Your task to perform on an android device: Check the weather Image 0: 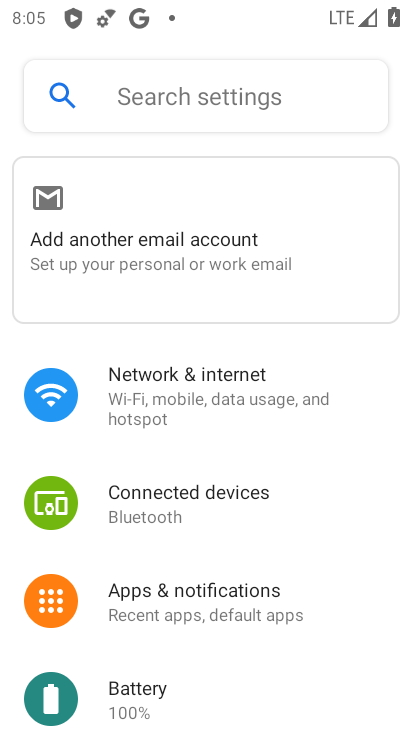
Step 0: drag from (238, 659) to (334, 122)
Your task to perform on an android device: Check the weather Image 1: 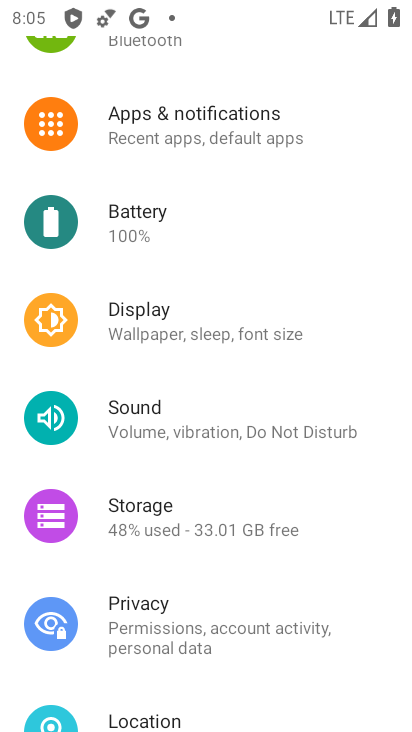
Step 1: press home button
Your task to perform on an android device: Check the weather Image 2: 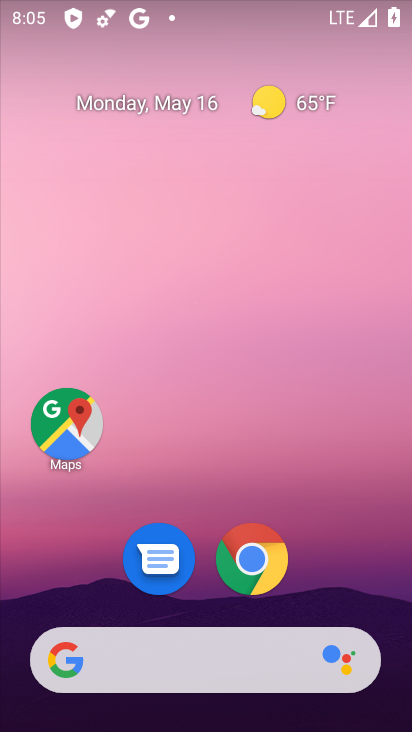
Step 2: click (134, 102)
Your task to perform on an android device: Check the weather Image 3: 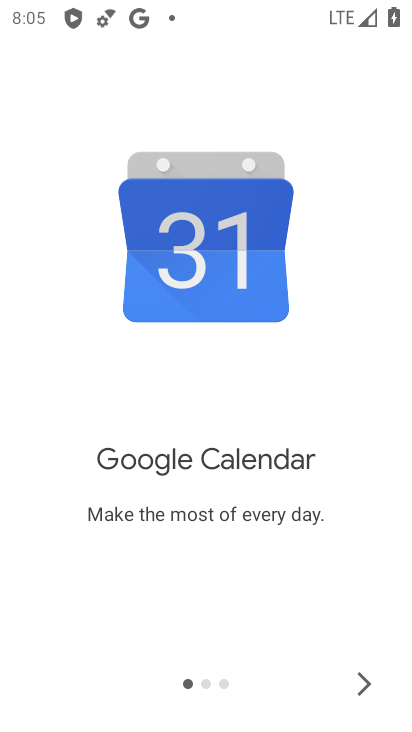
Step 3: click (361, 680)
Your task to perform on an android device: Check the weather Image 4: 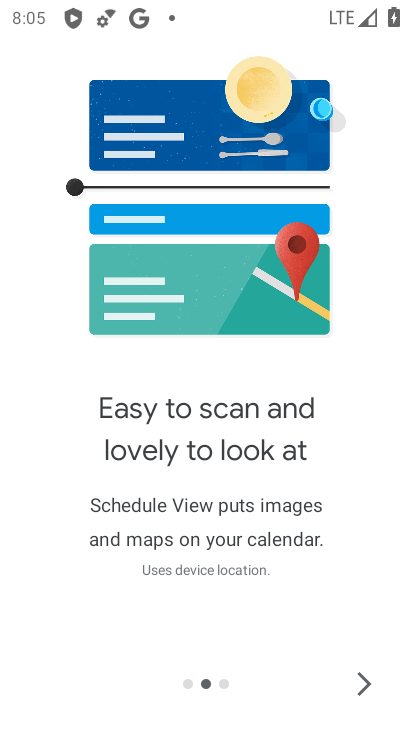
Step 4: click (366, 675)
Your task to perform on an android device: Check the weather Image 5: 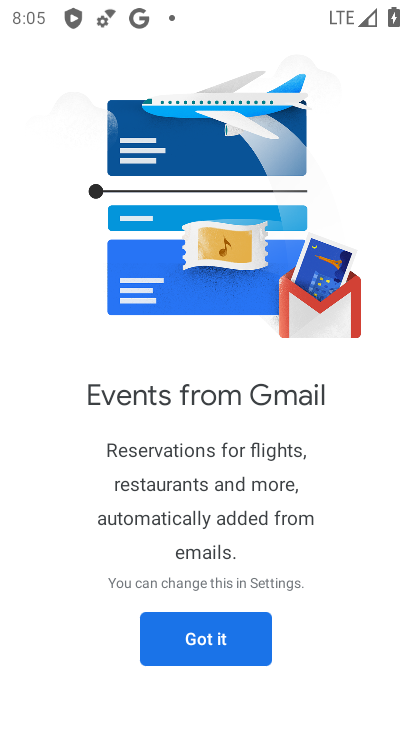
Step 5: click (368, 667)
Your task to perform on an android device: Check the weather Image 6: 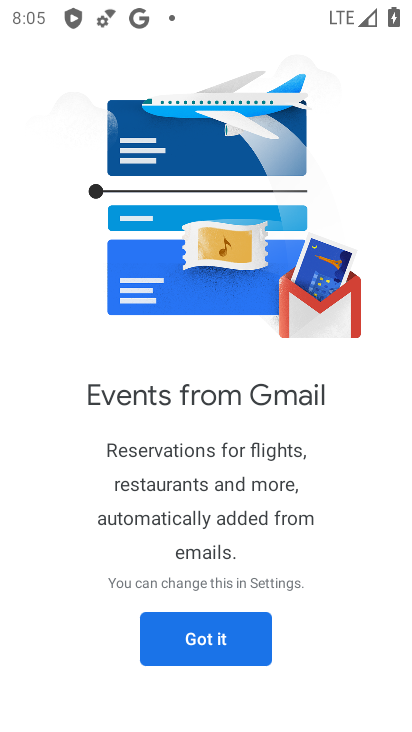
Step 6: click (253, 637)
Your task to perform on an android device: Check the weather Image 7: 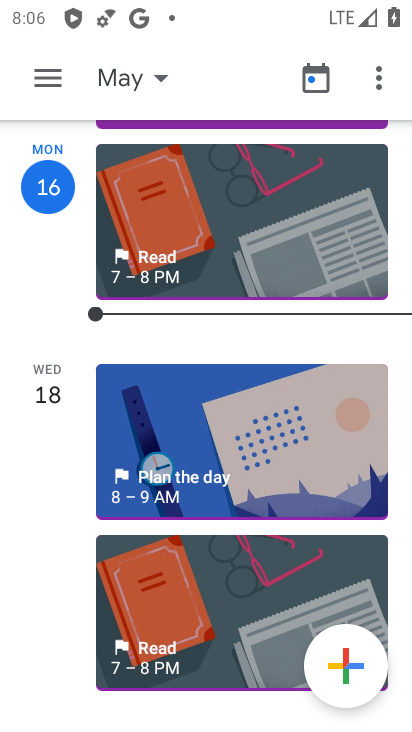
Step 7: press back button
Your task to perform on an android device: Check the weather Image 8: 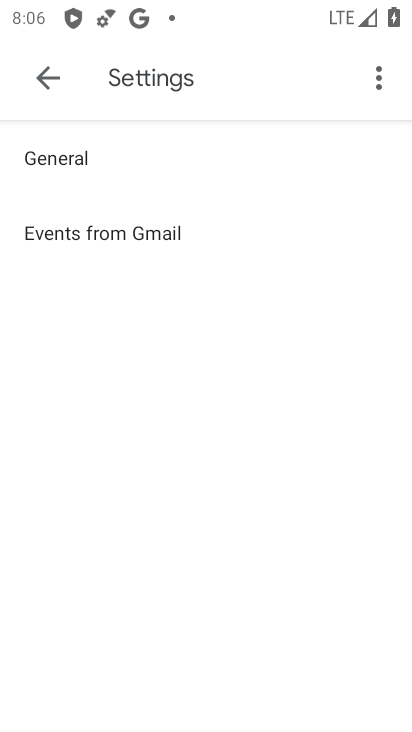
Step 8: press back button
Your task to perform on an android device: Check the weather Image 9: 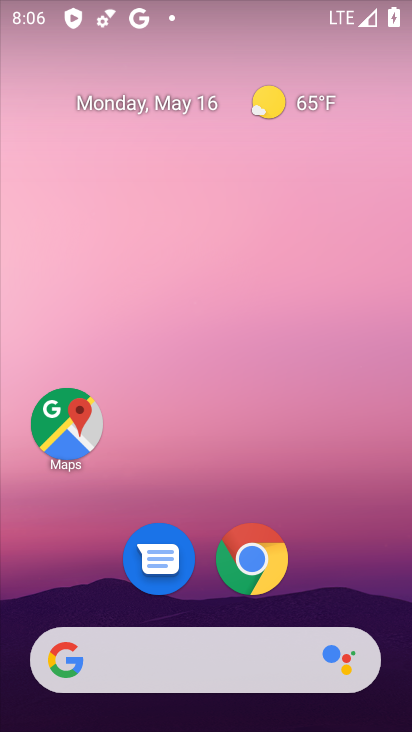
Step 9: click (270, 89)
Your task to perform on an android device: Check the weather Image 10: 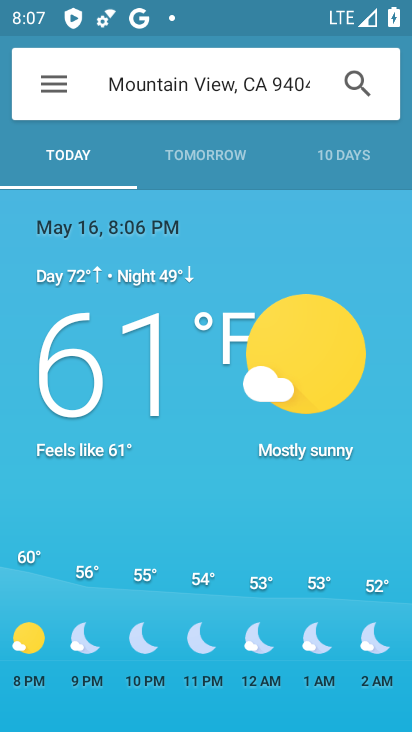
Step 10: task complete